Your task to perform on an android device: turn off notifications in google photos Image 0: 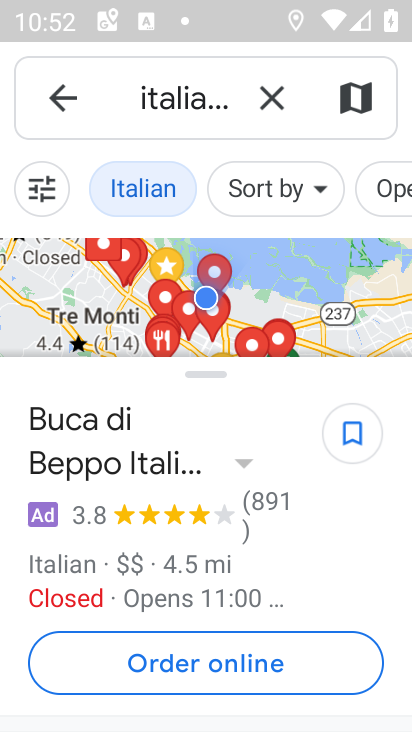
Step 0: press home button
Your task to perform on an android device: turn off notifications in google photos Image 1: 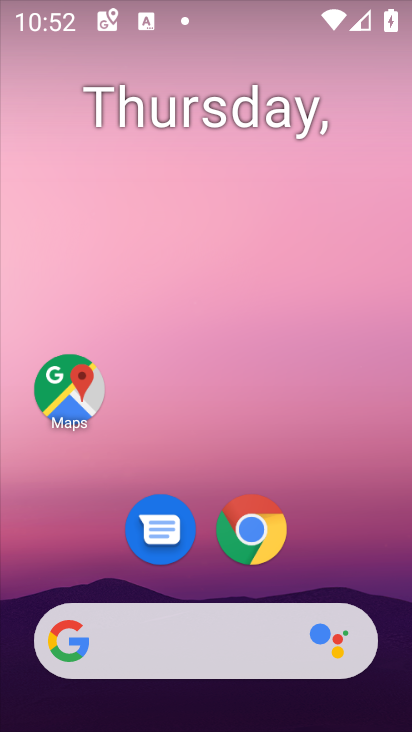
Step 1: drag from (251, 586) to (101, 18)
Your task to perform on an android device: turn off notifications in google photos Image 2: 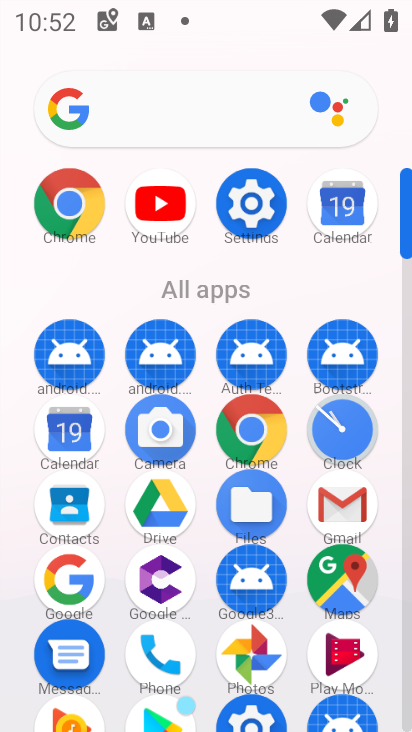
Step 2: click (262, 656)
Your task to perform on an android device: turn off notifications in google photos Image 3: 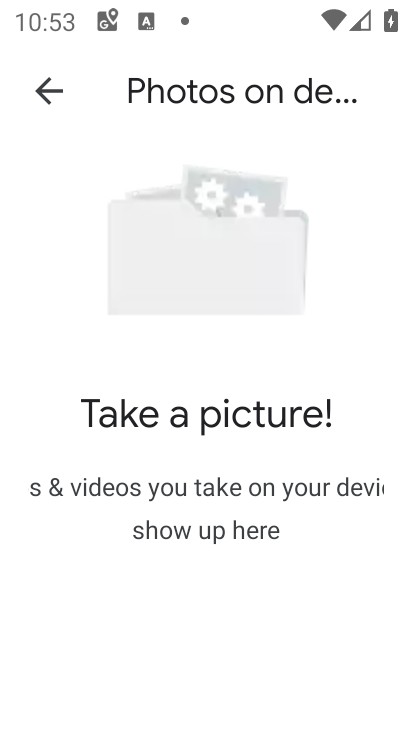
Step 3: click (41, 93)
Your task to perform on an android device: turn off notifications in google photos Image 4: 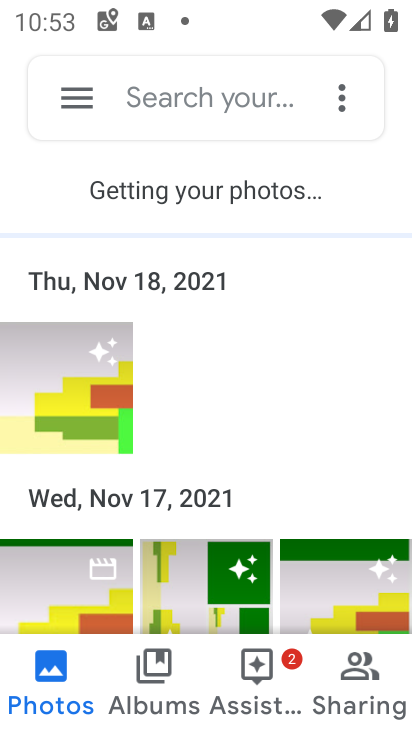
Step 4: click (77, 107)
Your task to perform on an android device: turn off notifications in google photos Image 5: 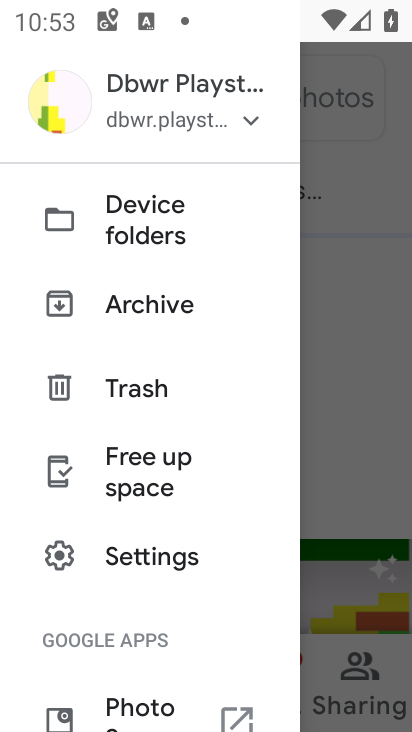
Step 5: drag from (154, 613) to (144, 107)
Your task to perform on an android device: turn off notifications in google photos Image 6: 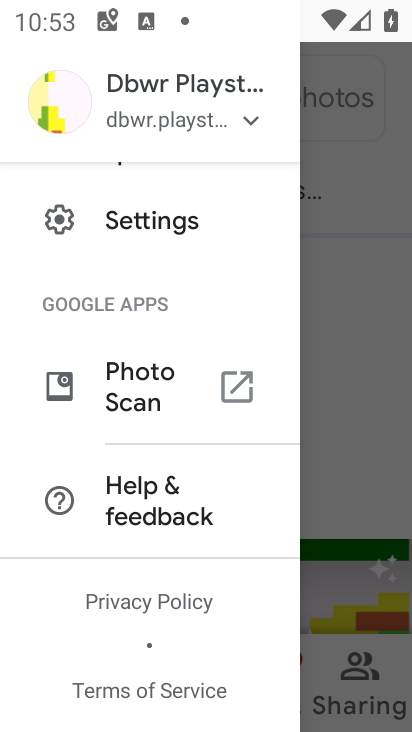
Step 6: click (125, 218)
Your task to perform on an android device: turn off notifications in google photos Image 7: 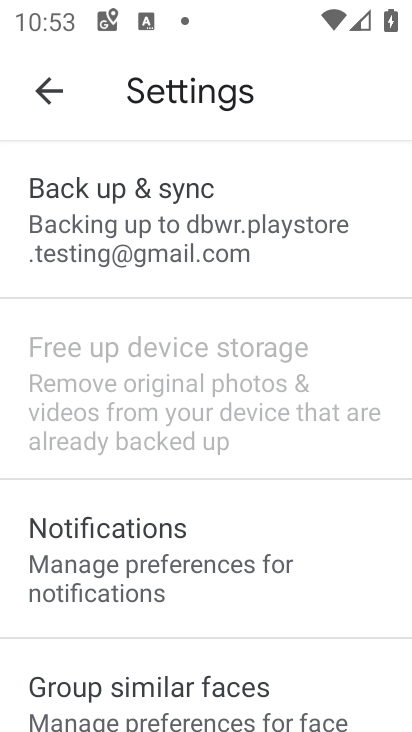
Step 7: click (191, 593)
Your task to perform on an android device: turn off notifications in google photos Image 8: 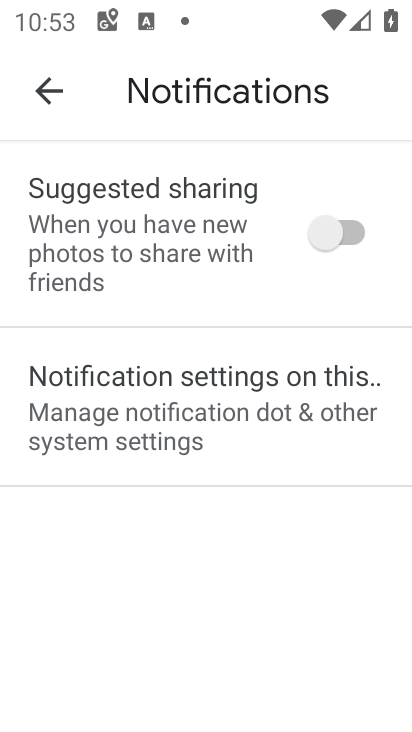
Step 8: click (120, 407)
Your task to perform on an android device: turn off notifications in google photos Image 9: 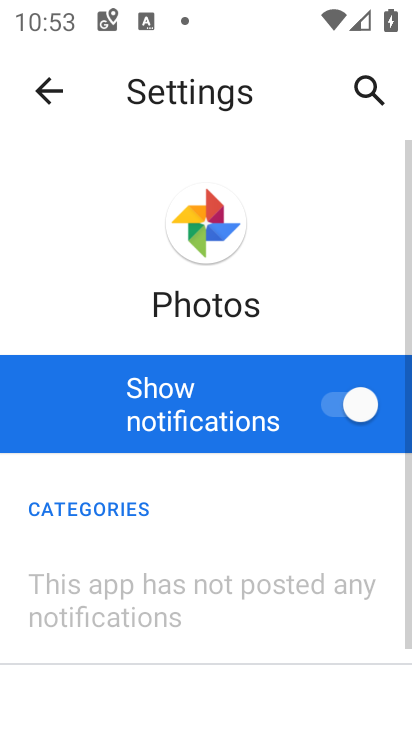
Step 9: click (351, 415)
Your task to perform on an android device: turn off notifications in google photos Image 10: 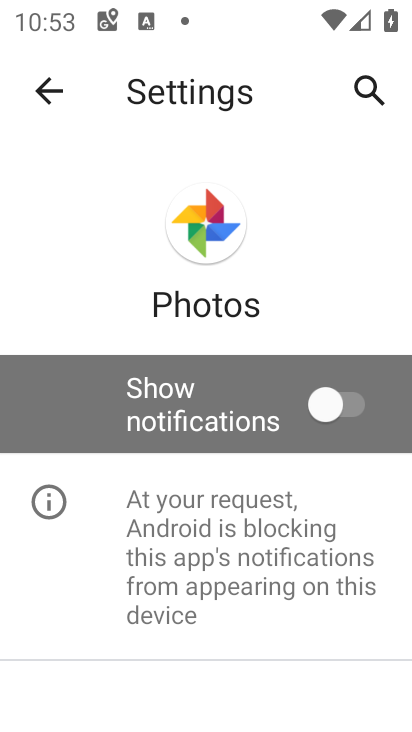
Step 10: task complete